Your task to perform on an android device: Open the phone app and click the voicemail tab. Image 0: 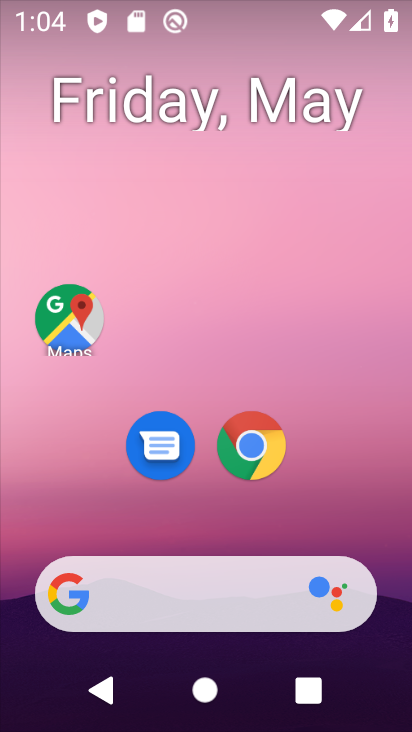
Step 0: drag from (393, 612) to (325, 152)
Your task to perform on an android device: Open the phone app and click the voicemail tab. Image 1: 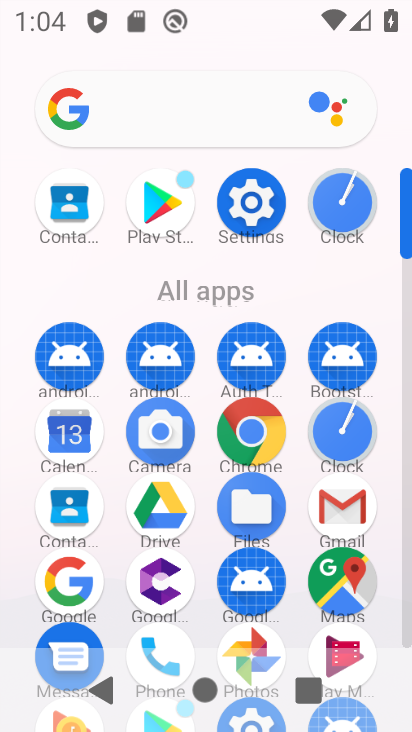
Step 1: click (406, 614)
Your task to perform on an android device: Open the phone app and click the voicemail tab. Image 2: 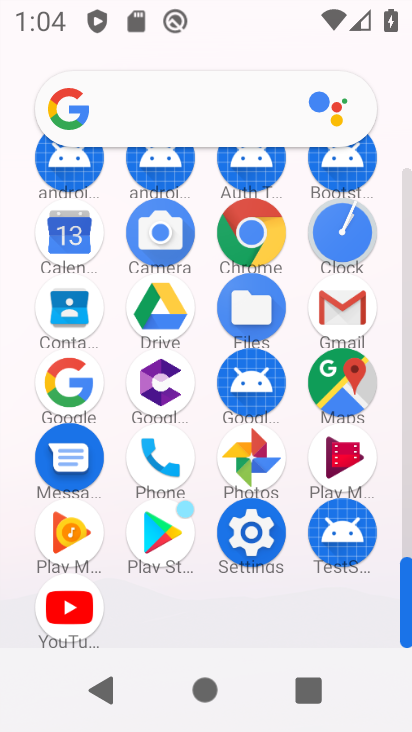
Step 2: click (151, 454)
Your task to perform on an android device: Open the phone app and click the voicemail tab. Image 3: 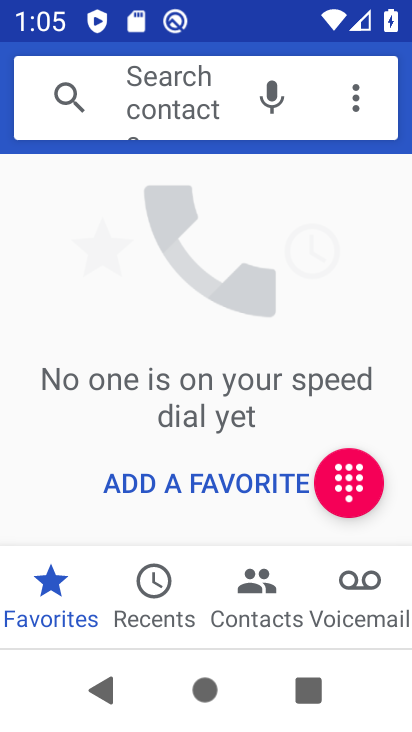
Step 3: click (355, 568)
Your task to perform on an android device: Open the phone app and click the voicemail tab. Image 4: 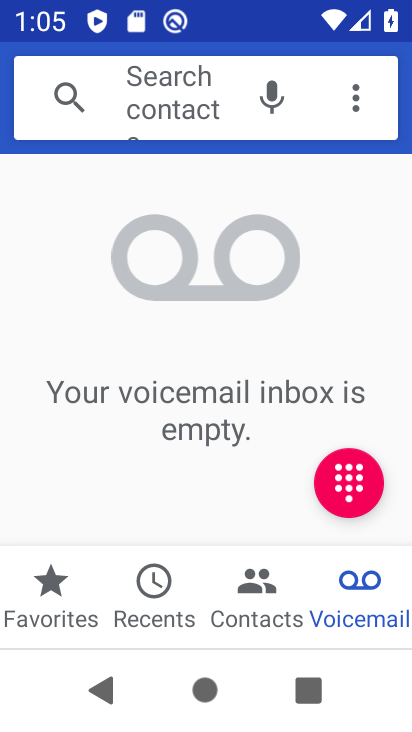
Step 4: task complete